Your task to perform on an android device: toggle wifi Image 0: 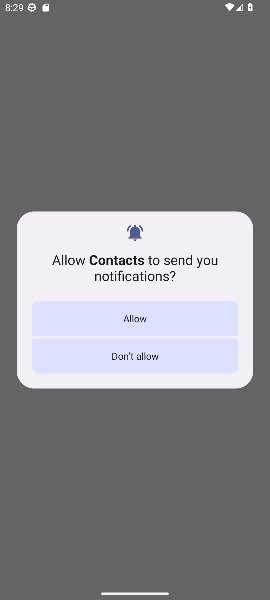
Step 0: press home button
Your task to perform on an android device: toggle wifi Image 1: 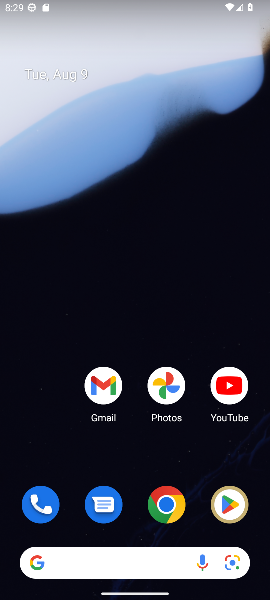
Step 1: drag from (138, 471) to (142, 5)
Your task to perform on an android device: toggle wifi Image 2: 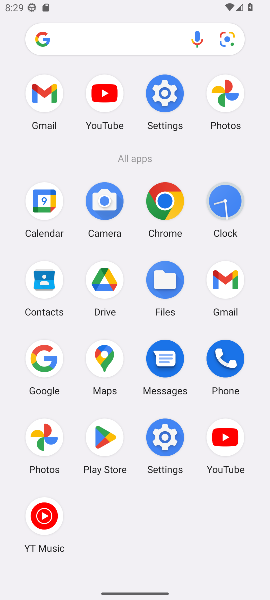
Step 2: click (171, 85)
Your task to perform on an android device: toggle wifi Image 3: 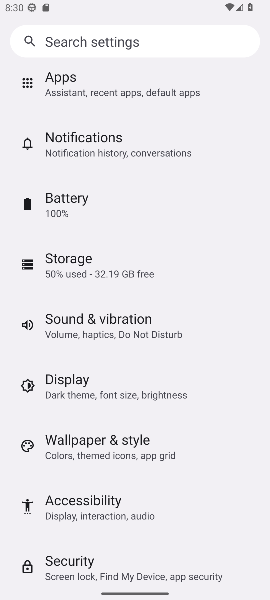
Step 3: drag from (182, 176) to (179, 425)
Your task to perform on an android device: toggle wifi Image 4: 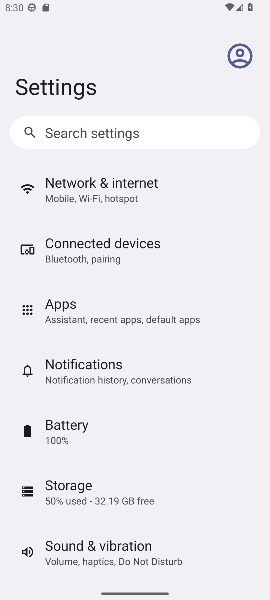
Step 4: click (90, 184)
Your task to perform on an android device: toggle wifi Image 5: 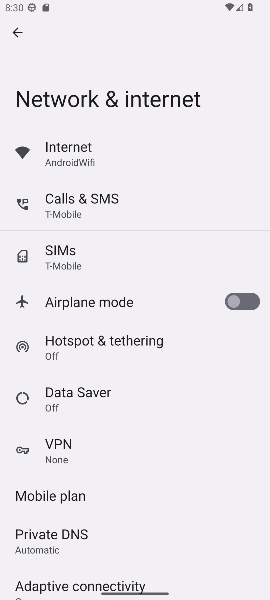
Step 5: click (77, 140)
Your task to perform on an android device: toggle wifi Image 6: 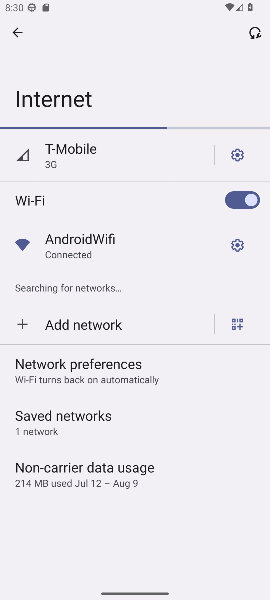
Step 6: click (247, 198)
Your task to perform on an android device: toggle wifi Image 7: 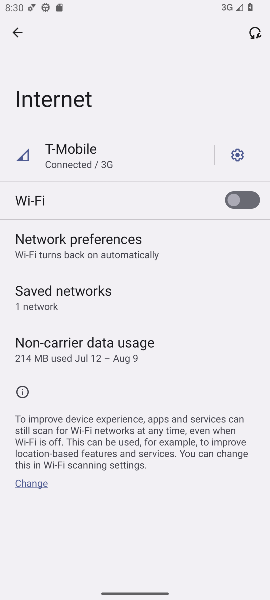
Step 7: task complete